Your task to perform on an android device: open sync settings in chrome Image 0: 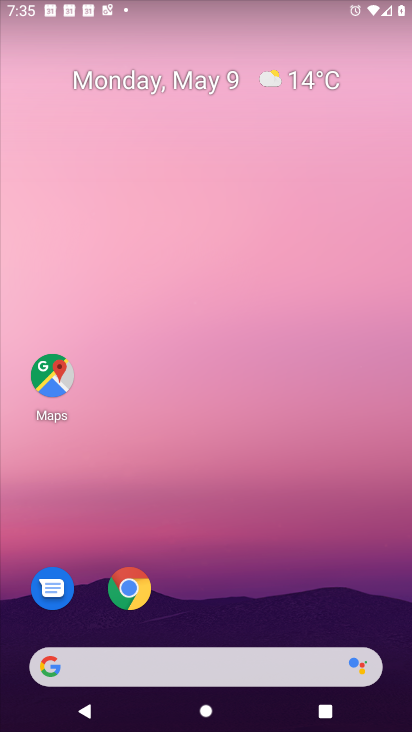
Step 0: drag from (342, 604) to (269, 117)
Your task to perform on an android device: open sync settings in chrome Image 1: 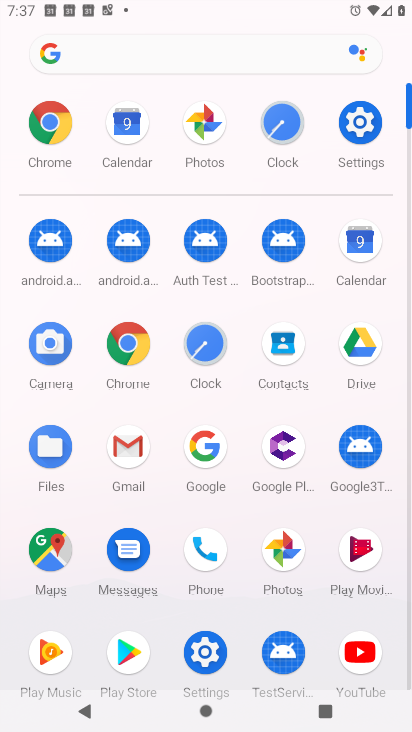
Step 1: click (119, 345)
Your task to perform on an android device: open sync settings in chrome Image 2: 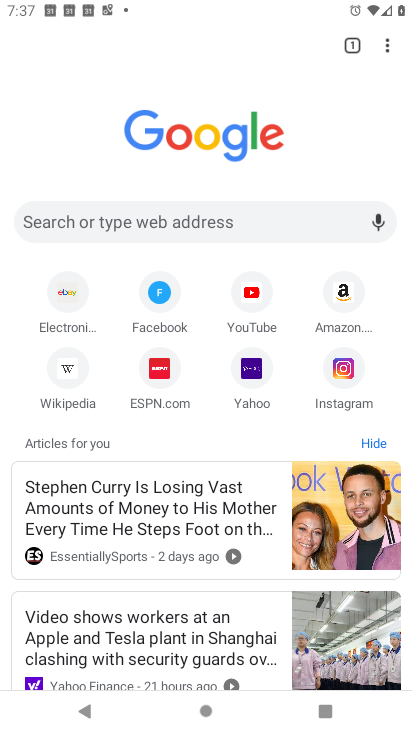
Step 2: click (390, 44)
Your task to perform on an android device: open sync settings in chrome Image 3: 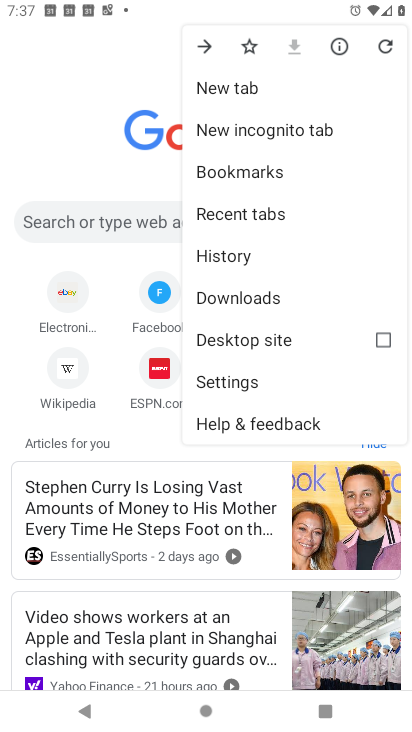
Step 3: click (260, 375)
Your task to perform on an android device: open sync settings in chrome Image 4: 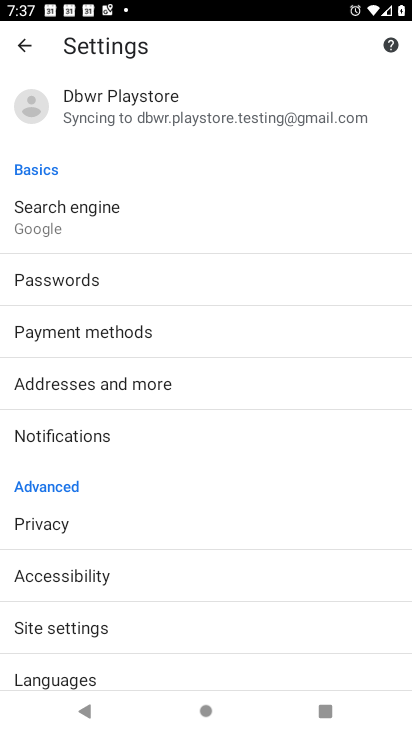
Step 4: click (95, 635)
Your task to perform on an android device: open sync settings in chrome Image 5: 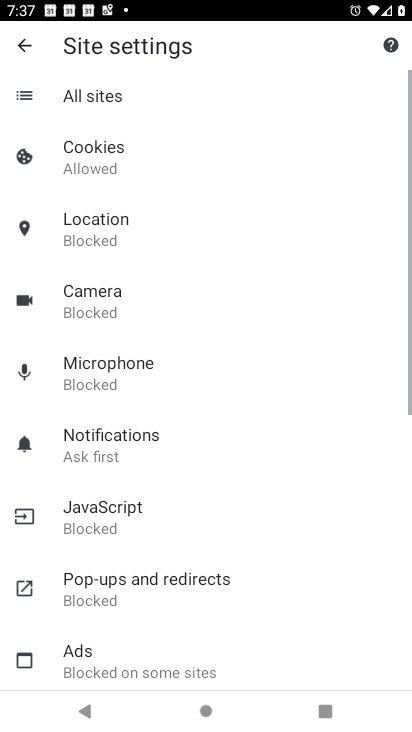
Step 5: drag from (95, 635) to (129, 230)
Your task to perform on an android device: open sync settings in chrome Image 6: 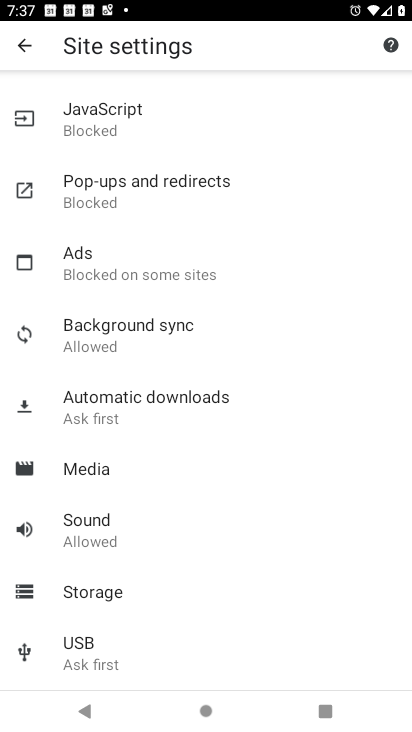
Step 6: click (109, 324)
Your task to perform on an android device: open sync settings in chrome Image 7: 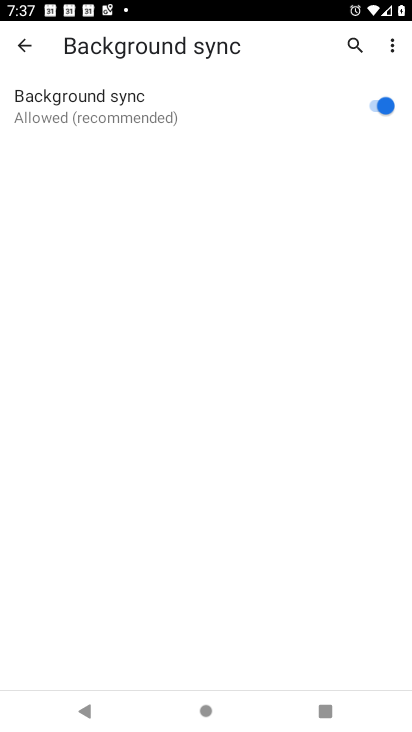
Step 7: task complete